Your task to perform on an android device: Open wifi settings Image 0: 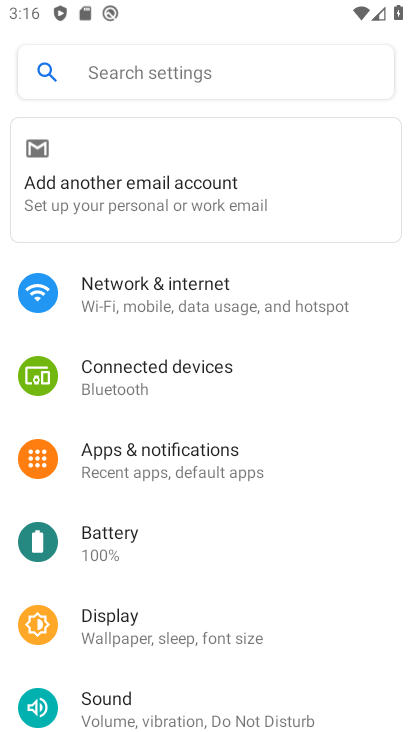
Step 0: press home button
Your task to perform on an android device: Open wifi settings Image 1: 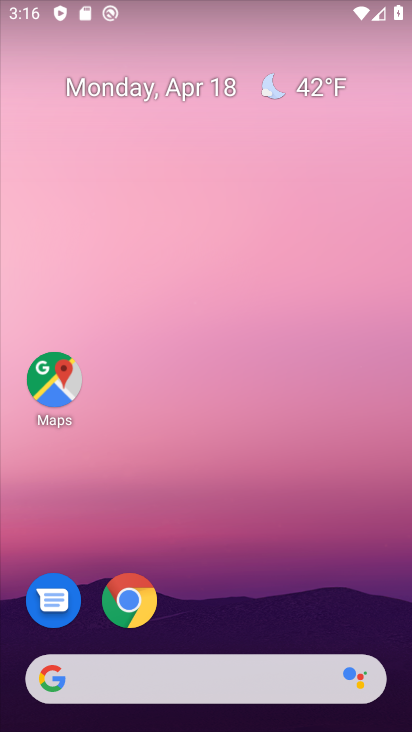
Step 1: drag from (149, 684) to (324, 56)
Your task to perform on an android device: Open wifi settings Image 2: 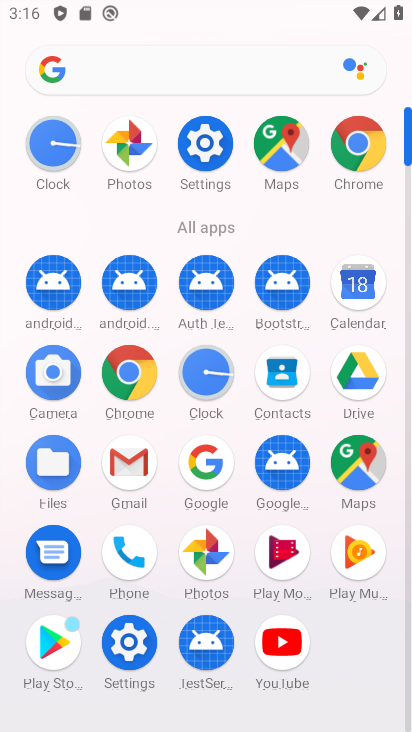
Step 2: click (213, 145)
Your task to perform on an android device: Open wifi settings Image 3: 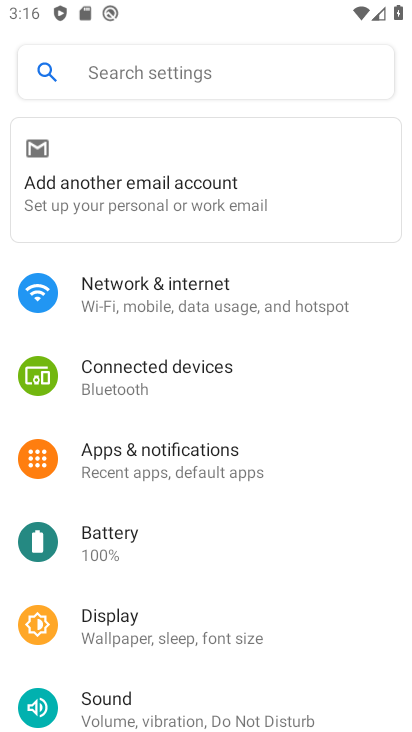
Step 3: click (204, 289)
Your task to perform on an android device: Open wifi settings Image 4: 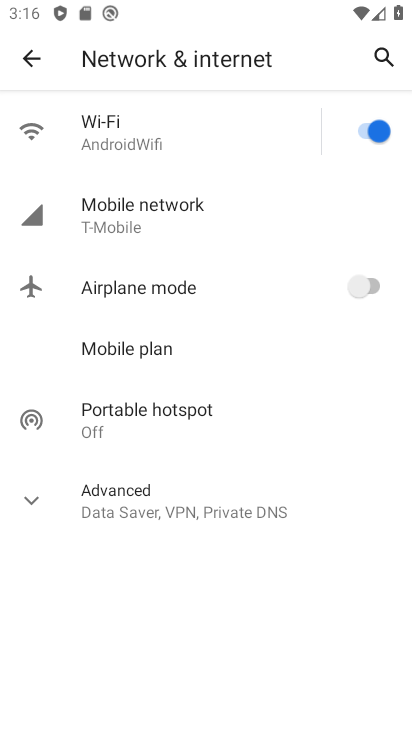
Step 4: click (140, 137)
Your task to perform on an android device: Open wifi settings Image 5: 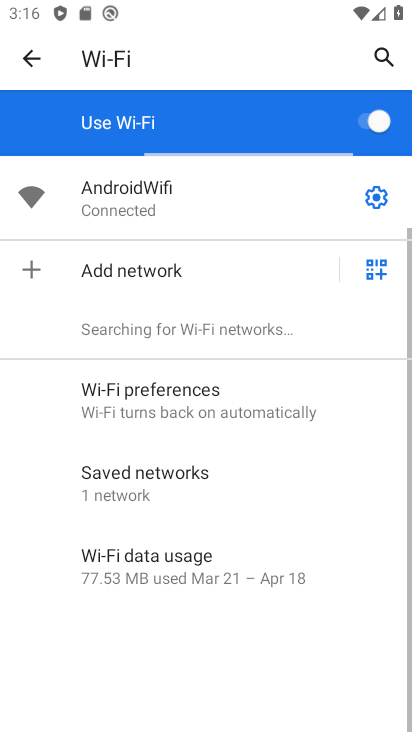
Step 5: task complete